Your task to perform on an android device: Open internet settings Image 0: 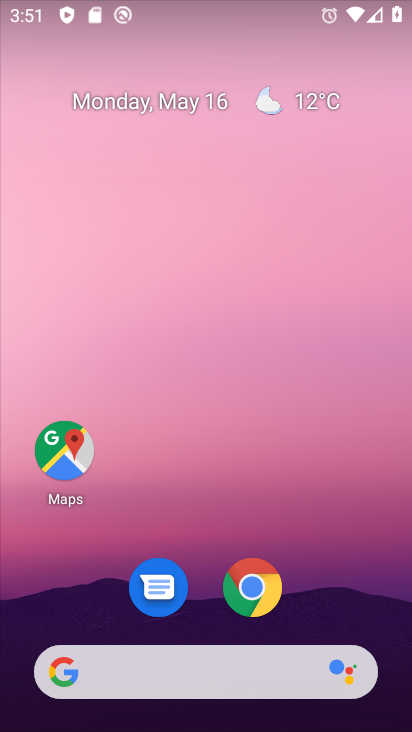
Step 0: drag from (400, 676) to (382, 350)
Your task to perform on an android device: Open internet settings Image 1: 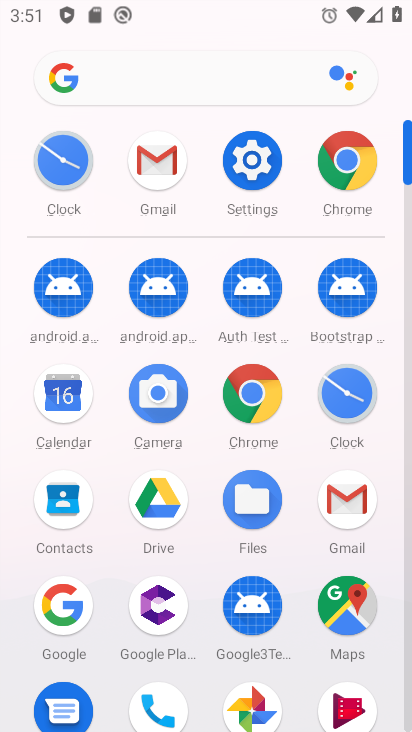
Step 1: click (261, 165)
Your task to perform on an android device: Open internet settings Image 2: 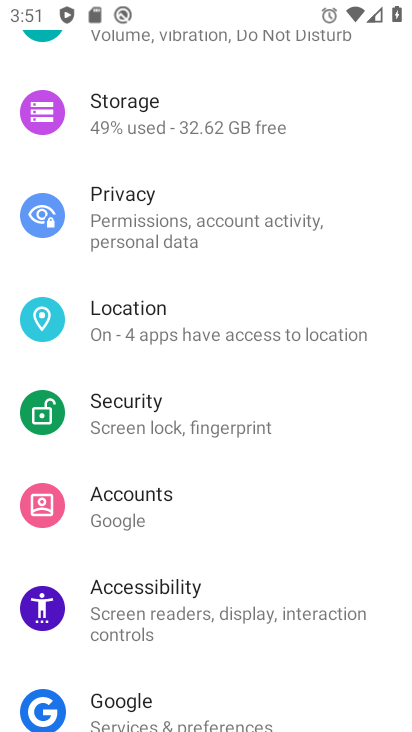
Step 2: drag from (361, 74) to (381, 428)
Your task to perform on an android device: Open internet settings Image 3: 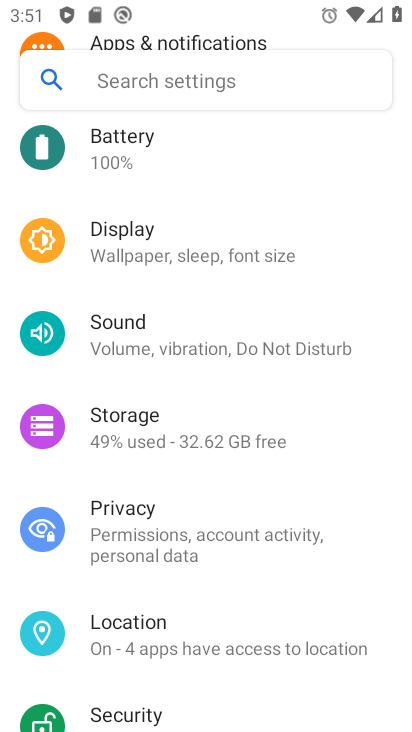
Step 3: drag from (315, 178) to (329, 550)
Your task to perform on an android device: Open internet settings Image 4: 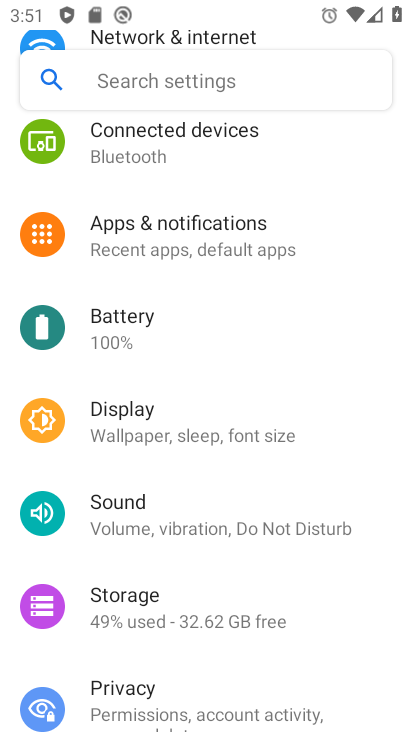
Step 4: drag from (313, 183) to (311, 499)
Your task to perform on an android device: Open internet settings Image 5: 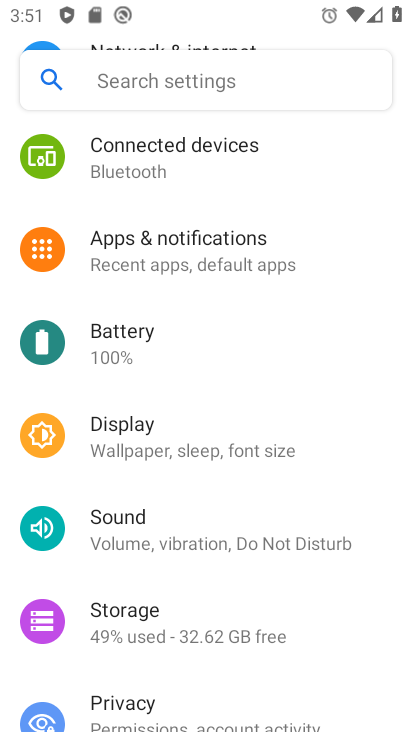
Step 5: drag from (297, 155) to (318, 515)
Your task to perform on an android device: Open internet settings Image 6: 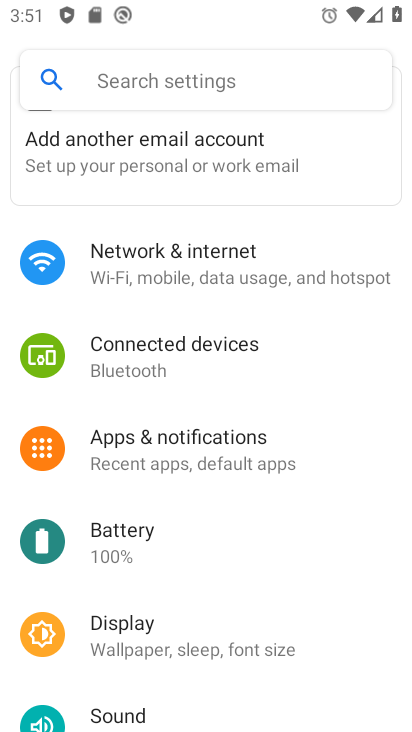
Step 6: click (148, 255)
Your task to perform on an android device: Open internet settings Image 7: 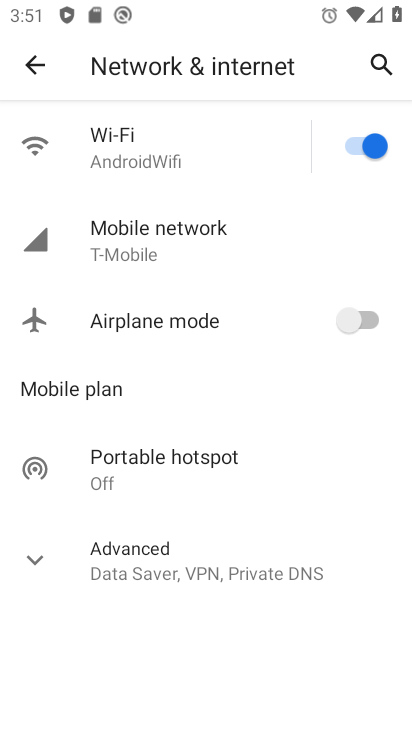
Step 7: task complete